Your task to perform on an android device: What's on my calendar today? Image 0: 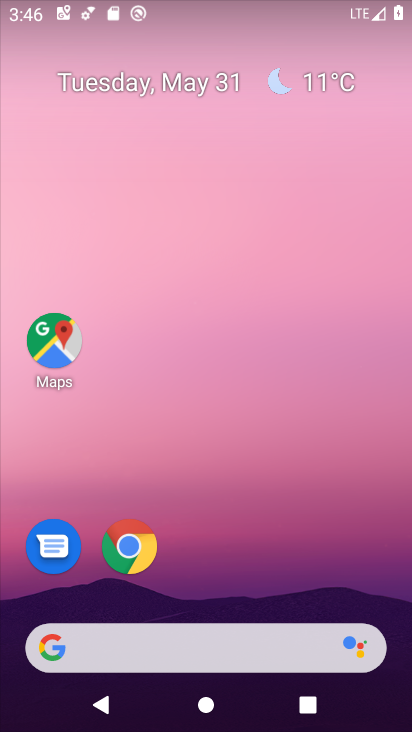
Step 0: drag from (281, 437) to (171, 6)
Your task to perform on an android device: What's on my calendar today? Image 1: 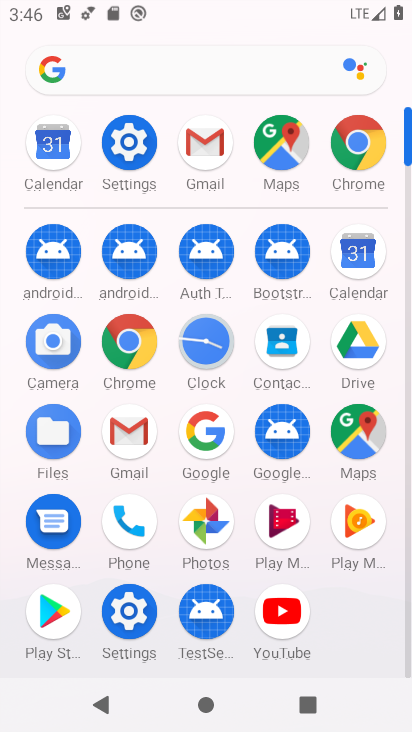
Step 1: click (358, 261)
Your task to perform on an android device: What's on my calendar today? Image 2: 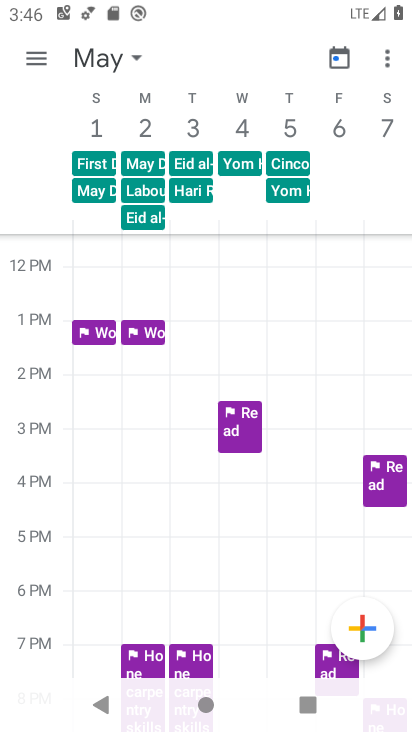
Step 2: click (126, 58)
Your task to perform on an android device: What's on my calendar today? Image 3: 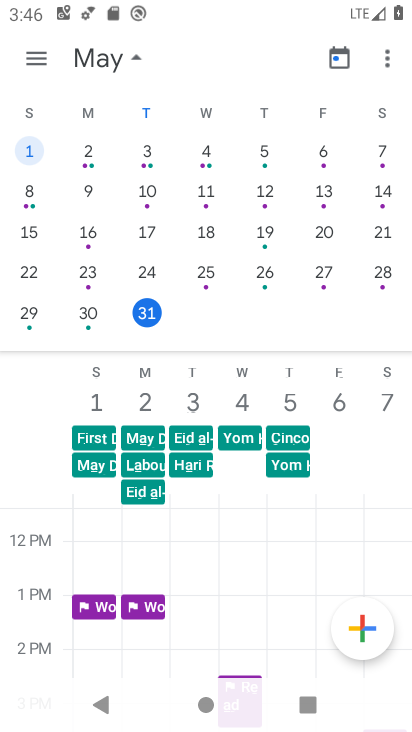
Step 3: task complete